Your task to perform on an android device: Go to Amazon Image 0: 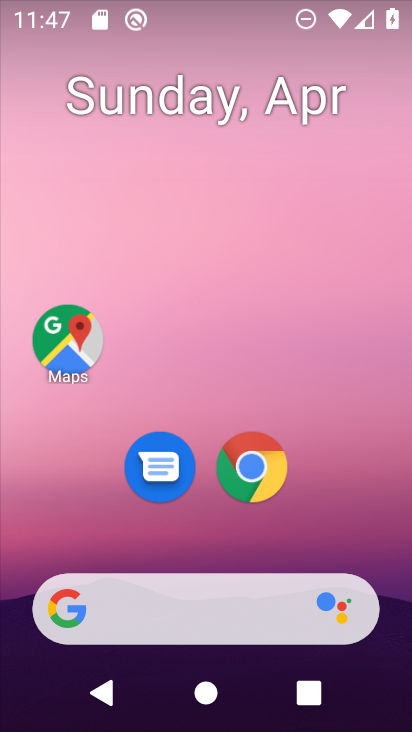
Step 0: drag from (365, 504) to (373, 90)
Your task to perform on an android device: Go to Amazon Image 1: 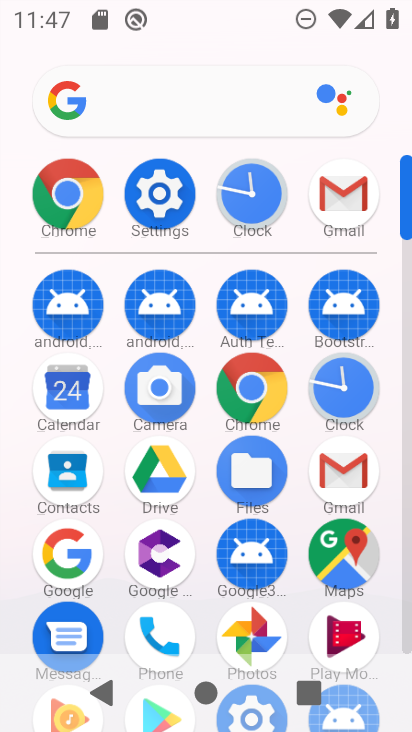
Step 1: click (250, 371)
Your task to perform on an android device: Go to Amazon Image 2: 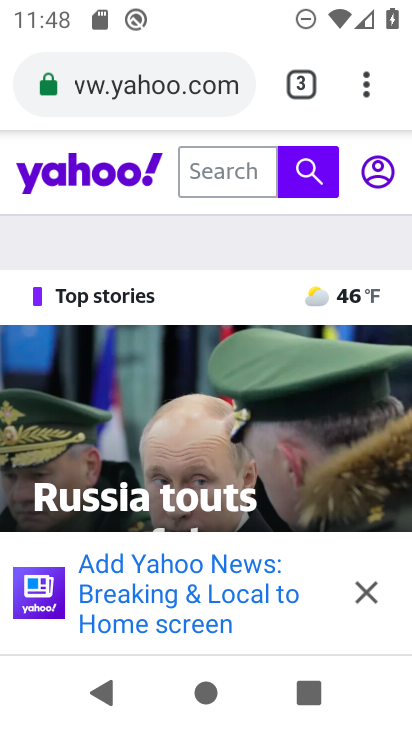
Step 2: click (159, 79)
Your task to perform on an android device: Go to Amazon Image 3: 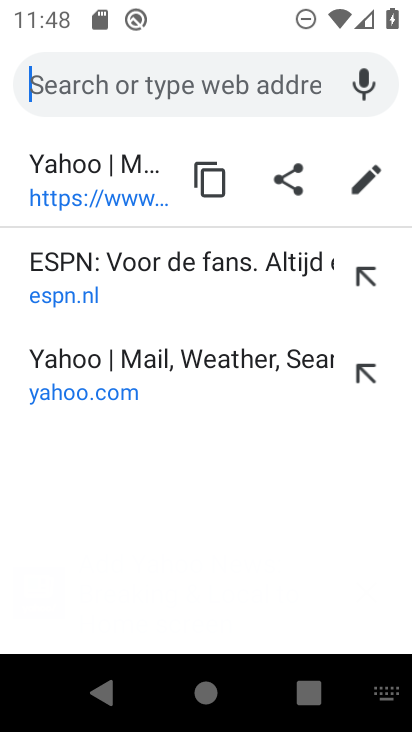
Step 3: type "amazon"
Your task to perform on an android device: Go to Amazon Image 4: 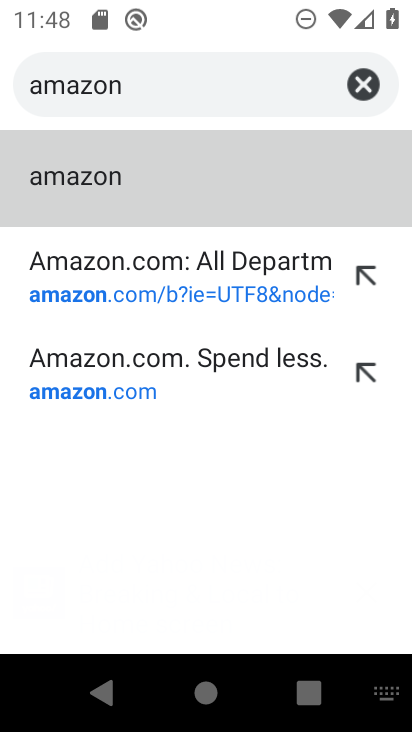
Step 4: click (302, 191)
Your task to perform on an android device: Go to Amazon Image 5: 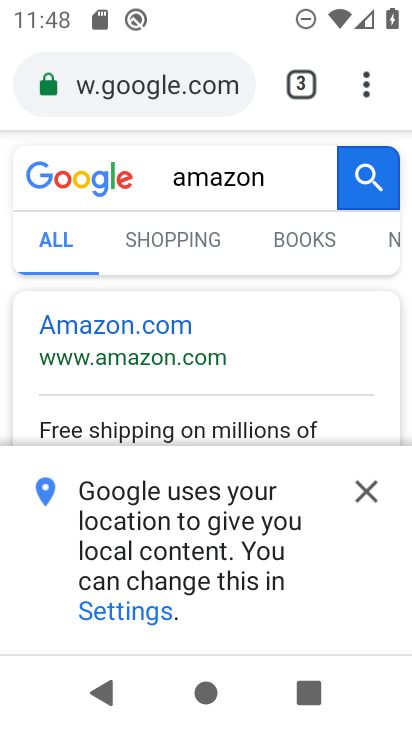
Step 5: click (142, 328)
Your task to perform on an android device: Go to Amazon Image 6: 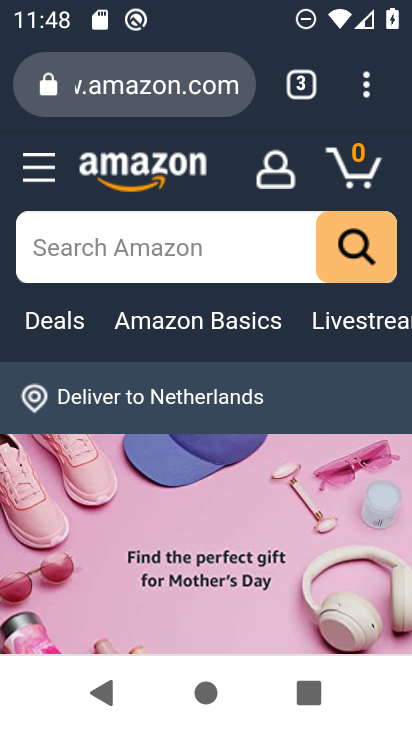
Step 6: task complete